Your task to perform on an android device: clear history in the chrome app Image 0: 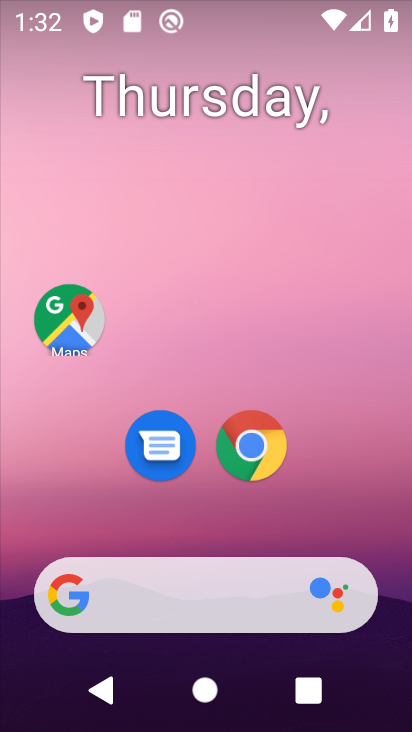
Step 0: press home button
Your task to perform on an android device: clear history in the chrome app Image 1: 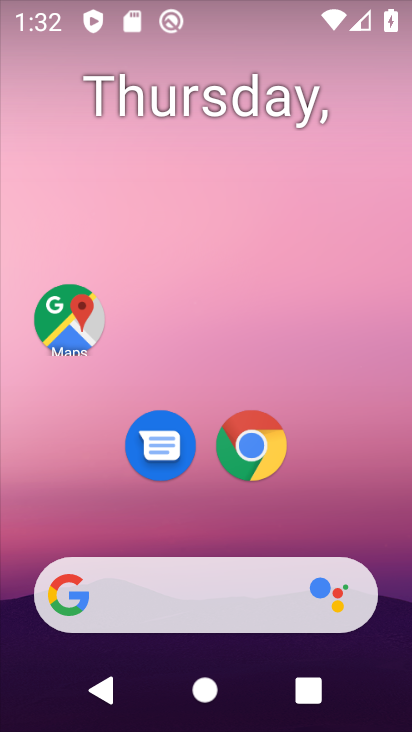
Step 1: click (262, 441)
Your task to perform on an android device: clear history in the chrome app Image 2: 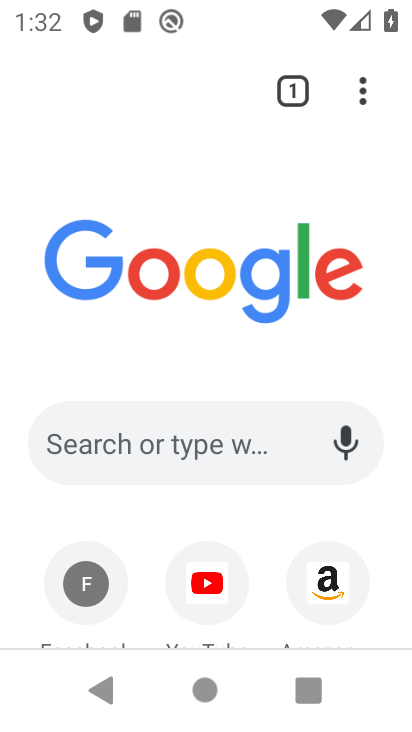
Step 2: click (363, 91)
Your task to perform on an android device: clear history in the chrome app Image 3: 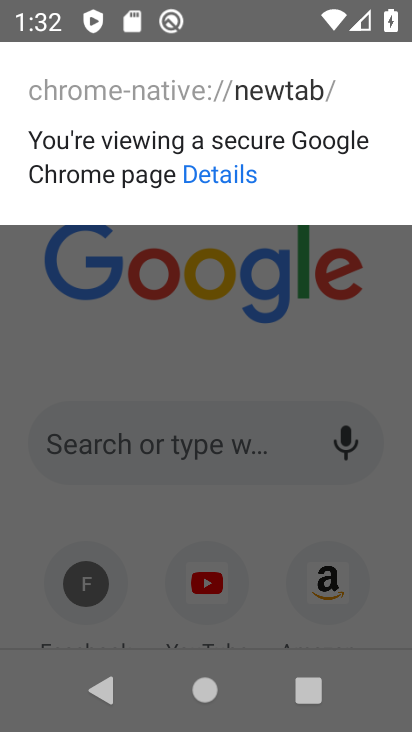
Step 3: click (363, 91)
Your task to perform on an android device: clear history in the chrome app Image 4: 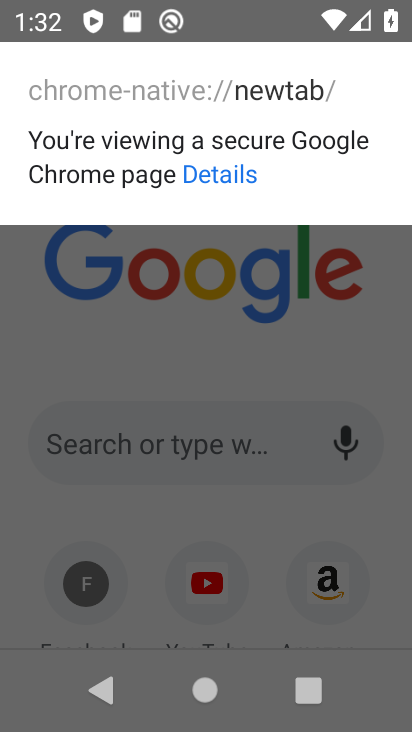
Step 4: press back button
Your task to perform on an android device: clear history in the chrome app Image 5: 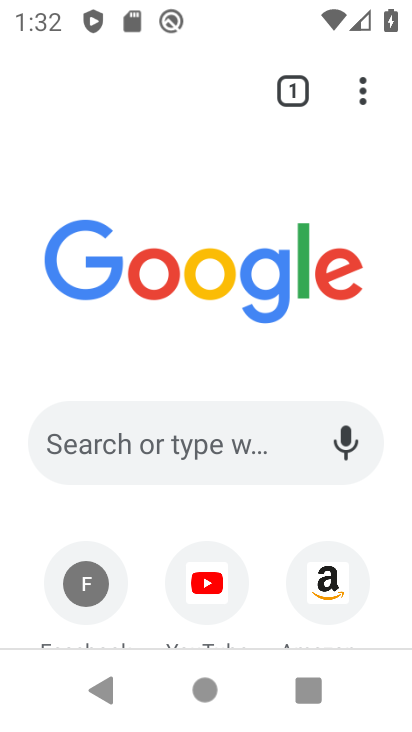
Step 5: click (358, 81)
Your task to perform on an android device: clear history in the chrome app Image 6: 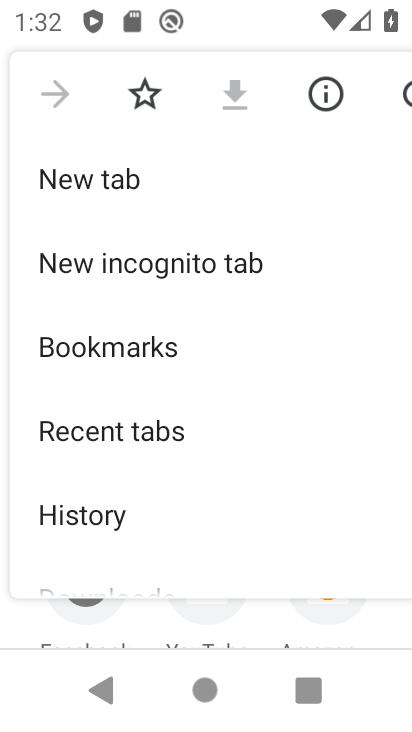
Step 6: click (82, 508)
Your task to perform on an android device: clear history in the chrome app Image 7: 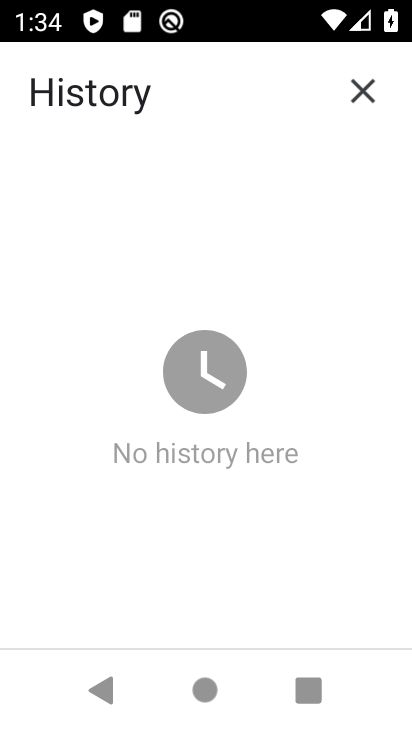
Step 7: task complete